Your task to perform on an android device: turn off location history Image 0: 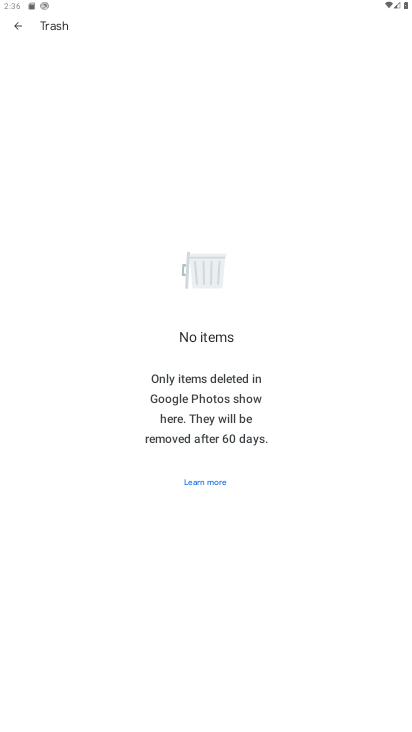
Step 0: press home button
Your task to perform on an android device: turn off location history Image 1: 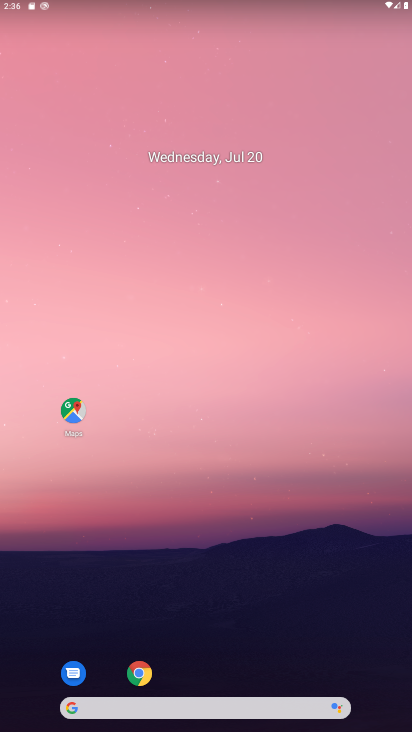
Step 1: drag from (216, 425) to (219, 274)
Your task to perform on an android device: turn off location history Image 2: 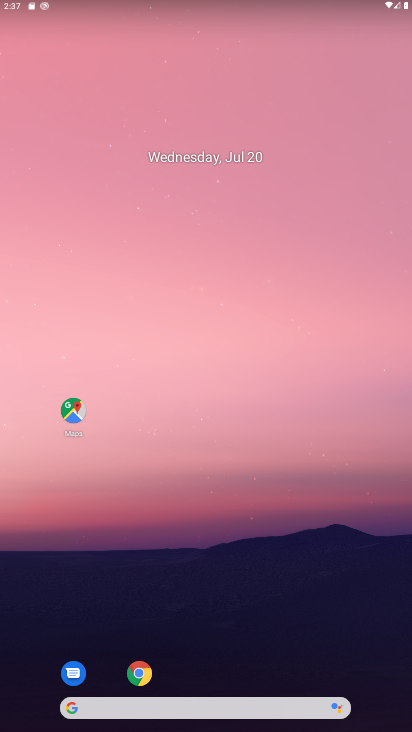
Step 2: drag from (221, 669) to (265, 129)
Your task to perform on an android device: turn off location history Image 3: 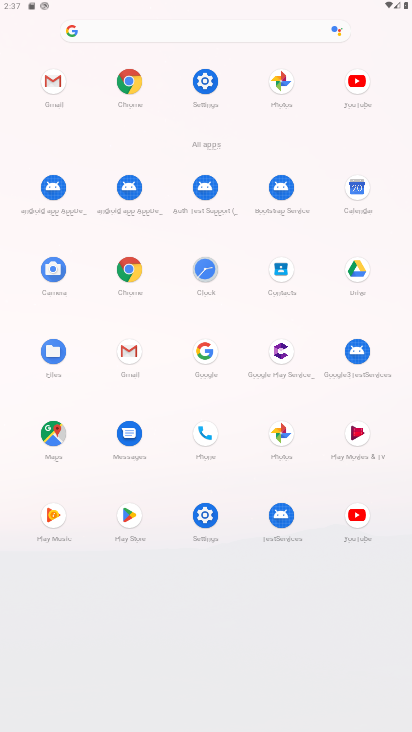
Step 3: click (198, 530)
Your task to perform on an android device: turn off location history Image 4: 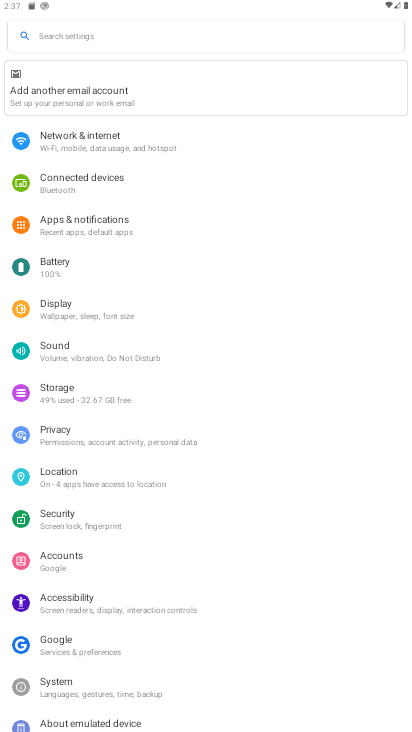
Step 4: click (101, 480)
Your task to perform on an android device: turn off location history Image 5: 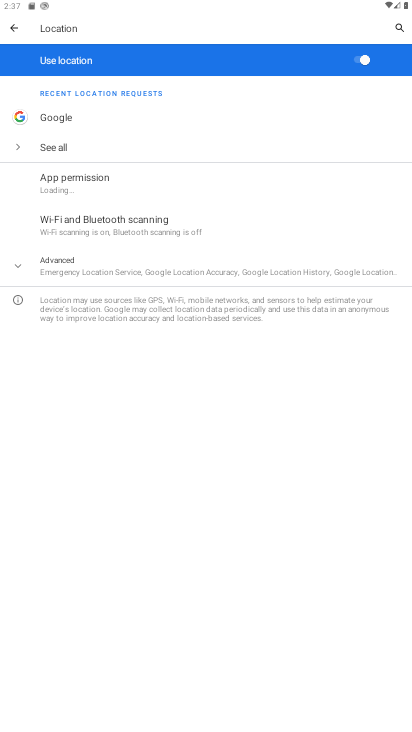
Step 5: click (106, 270)
Your task to perform on an android device: turn off location history Image 6: 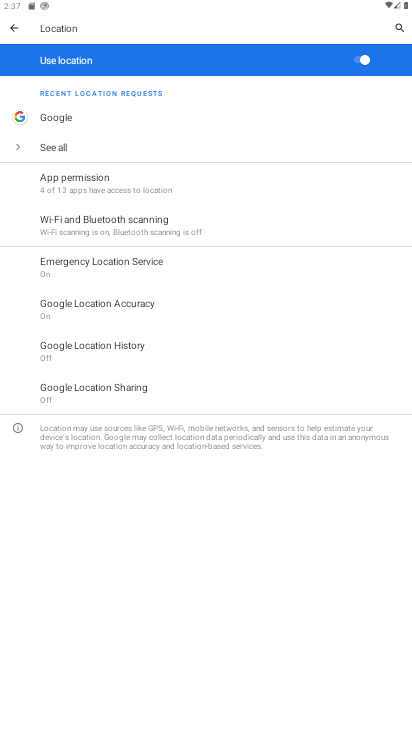
Step 6: click (128, 347)
Your task to perform on an android device: turn off location history Image 7: 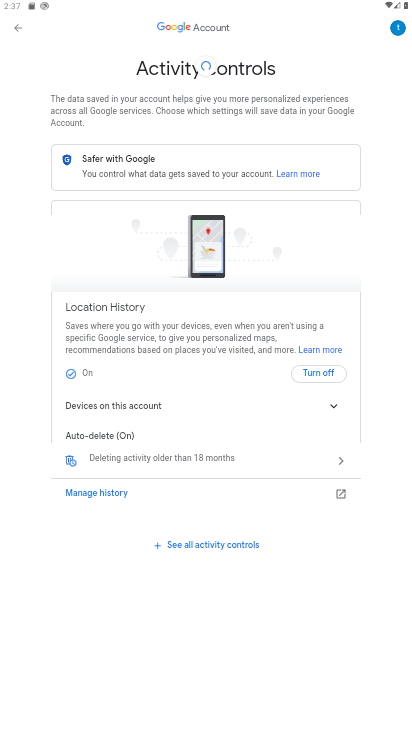
Step 7: click (311, 375)
Your task to perform on an android device: turn off location history Image 8: 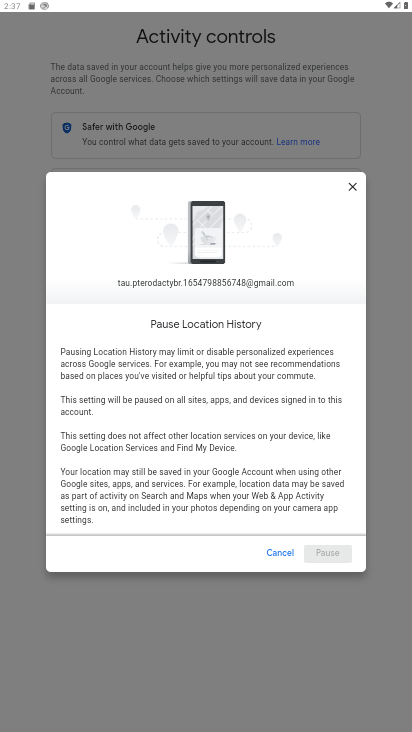
Step 8: drag from (221, 490) to (231, 246)
Your task to perform on an android device: turn off location history Image 9: 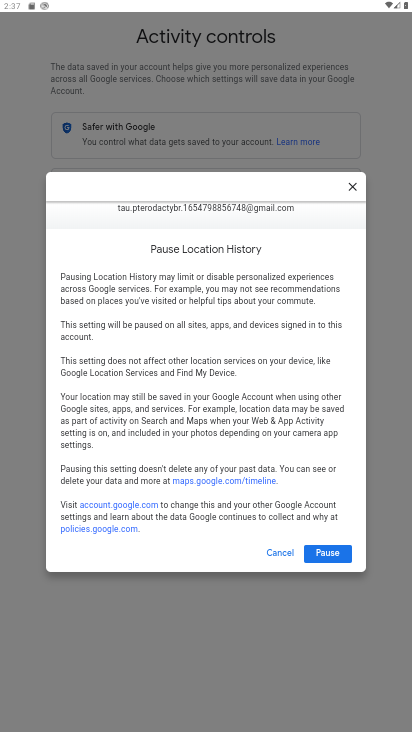
Step 9: click (326, 556)
Your task to perform on an android device: turn off location history Image 10: 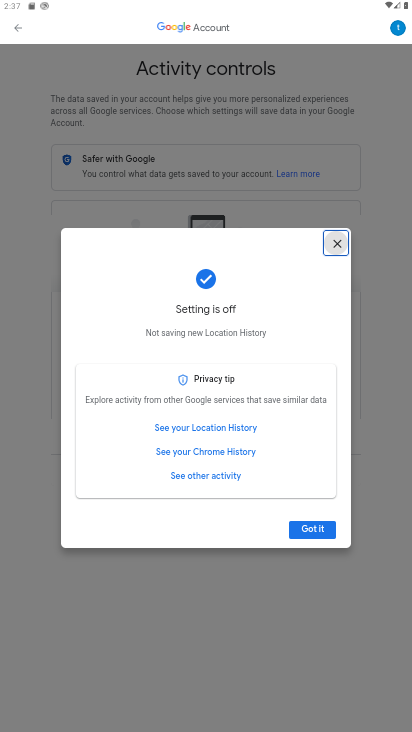
Step 10: click (320, 529)
Your task to perform on an android device: turn off location history Image 11: 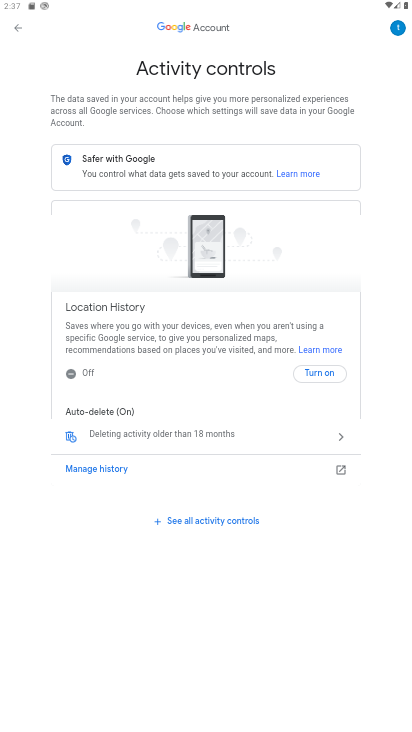
Step 11: task complete